Your task to perform on an android device: Search for vegetarian restaurants on Maps Image 0: 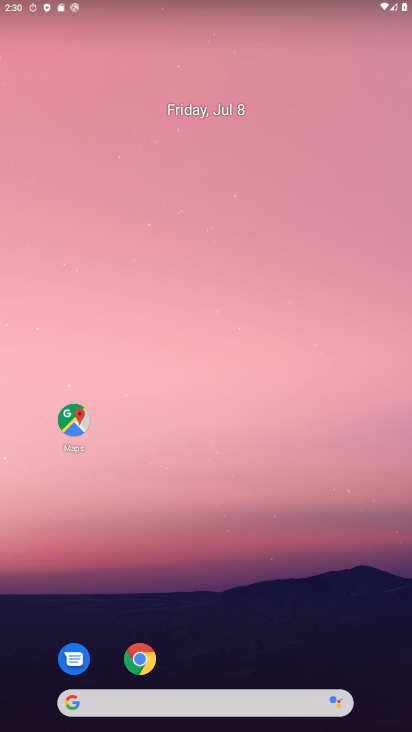
Step 0: click (72, 418)
Your task to perform on an android device: Search for vegetarian restaurants on Maps Image 1: 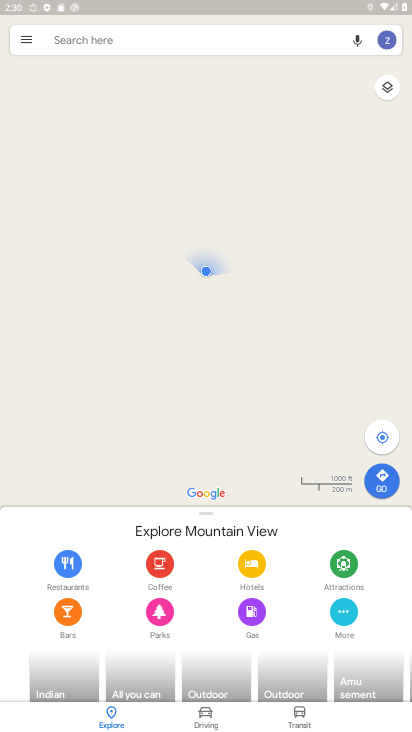
Step 1: click (85, 44)
Your task to perform on an android device: Search for vegetarian restaurants on Maps Image 2: 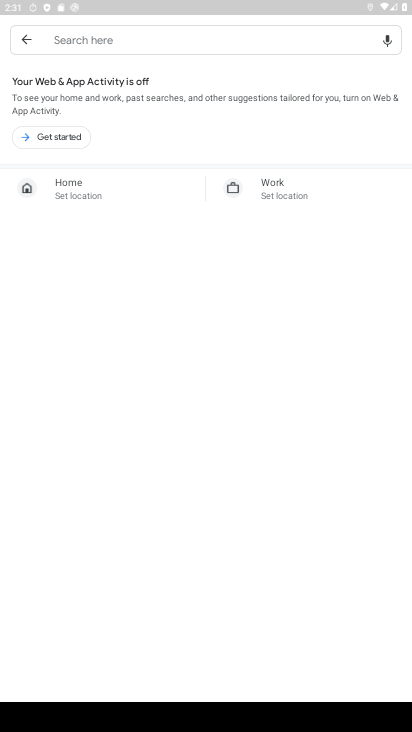
Step 2: type "vegetarian restaurants"
Your task to perform on an android device: Search for vegetarian restaurants on Maps Image 3: 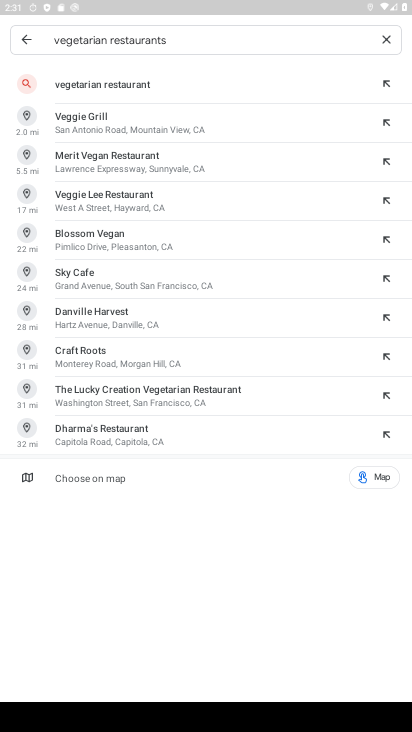
Step 3: click (203, 87)
Your task to perform on an android device: Search for vegetarian restaurants on Maps Image 4: 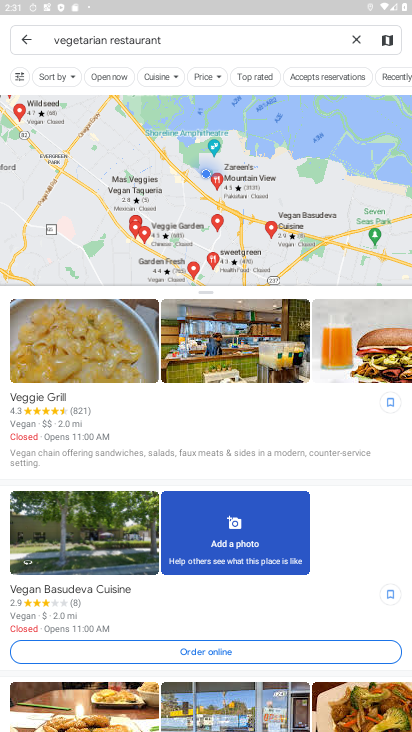
Step 4: task complete